Your task to perform on an android device: Search for the best selling video games at Target Image 0: 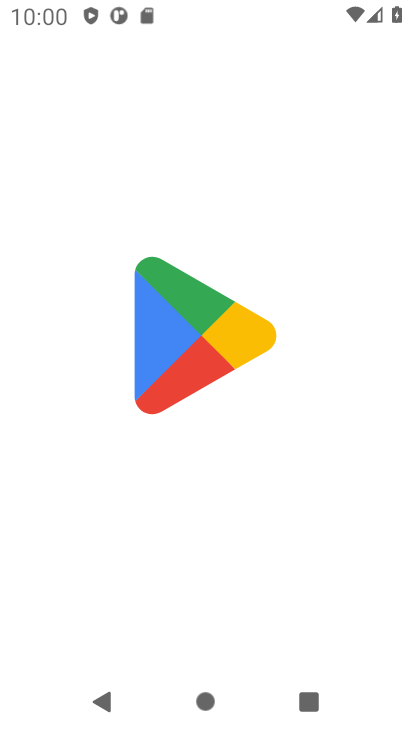
Step 0: press home button
Your task to perform on an android device: Search for the best selling video games at Target Image 1: 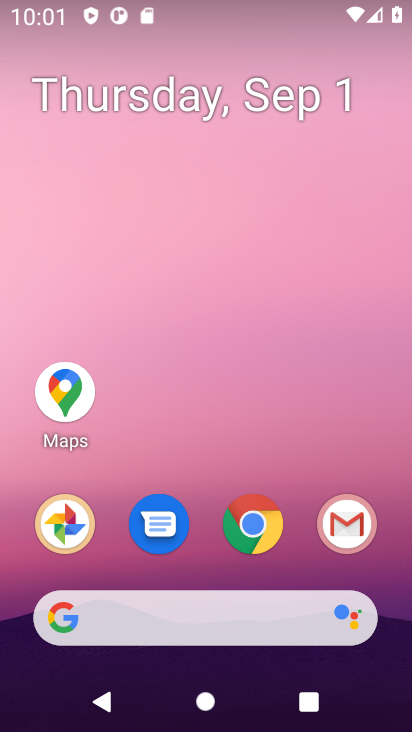
Step 1: drag from (383, 582) to (377, 82)
Your task to perform on an android device: Search for the best selling video games at Target Image 2: 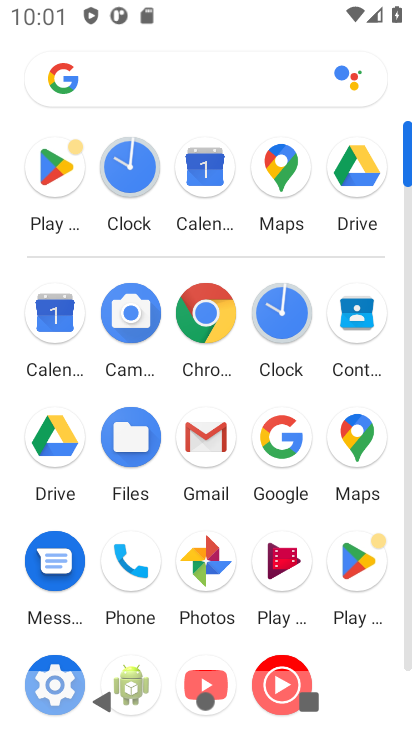
Step 2: click (206, 311)
Your task to perform on an android device: Search for the best selling video games at Target Image 3: 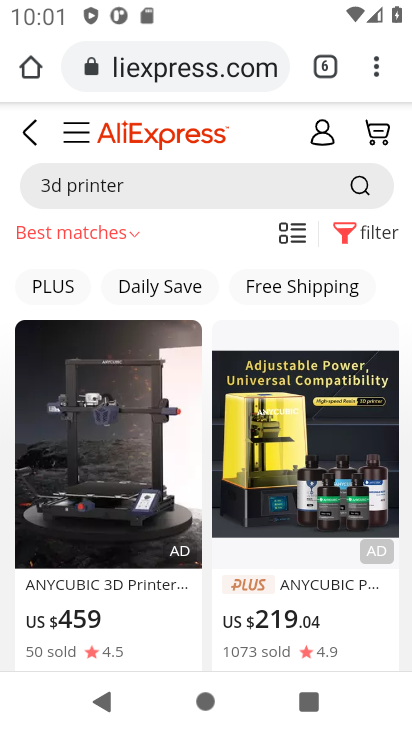
Step 3: click (202, 66)
Your task to perform on an android device: Search for the best selling video games at Target Image 4: 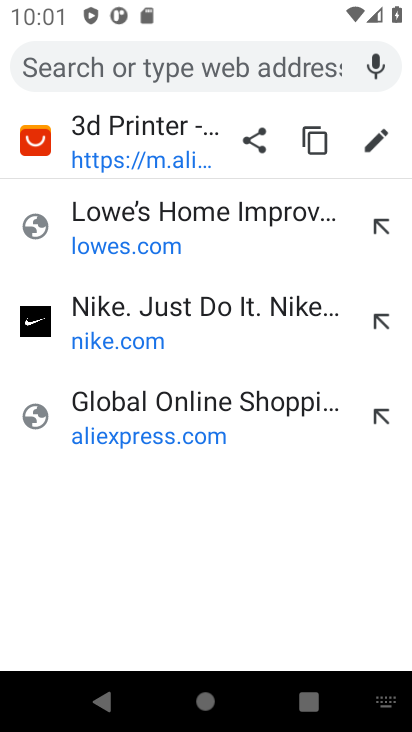
Step 4: type "target"
Your task to perform on an android device: Search for the best selling video games at Target Image 5: 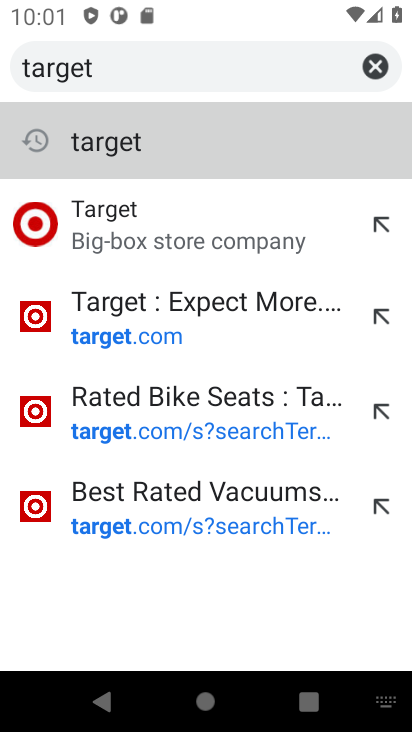
Step 5: click (196, 147)
Your task to perform on an android device: Search for the best selling video games at Target Image 6: 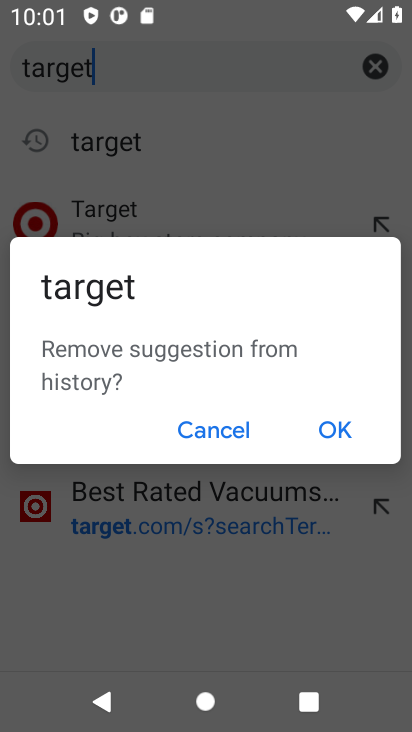
Step 6: click (230, 431)
Your task to perform on an android device: Search for the best selling video games at Target Image 7: 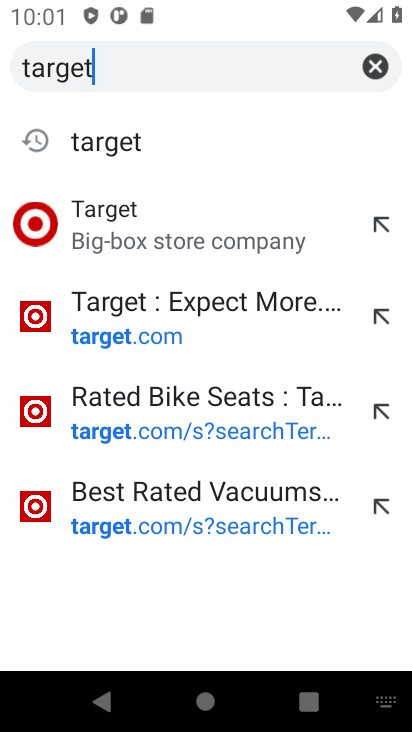
Step 7: click (100, 135)
Your task to perform on an android device: Search for the best selling video games at Target Image 8: 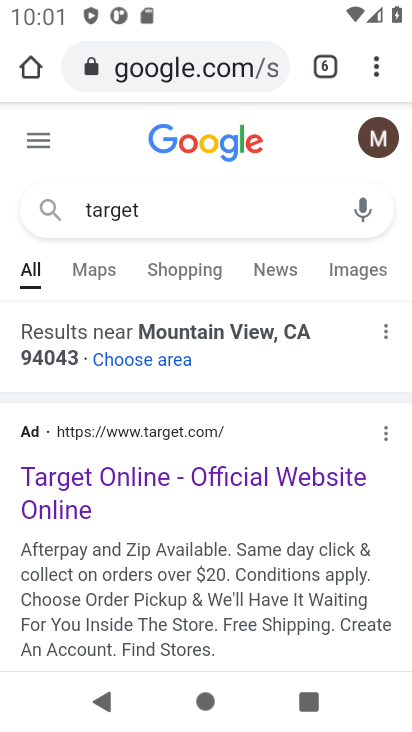
Step 8: click (239, 477)
Your task to perform on an android device: Search for the best selling video games at Target Image 9: 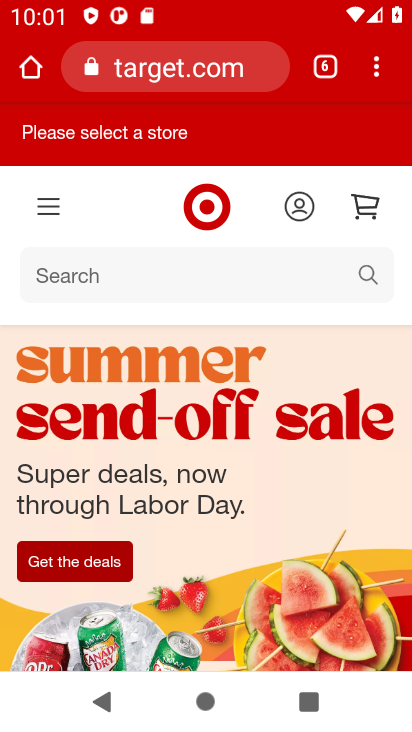
Step 9: click (124, 268)
Your task to perform on an android device: Search for the best selling video games at Target Image 10: 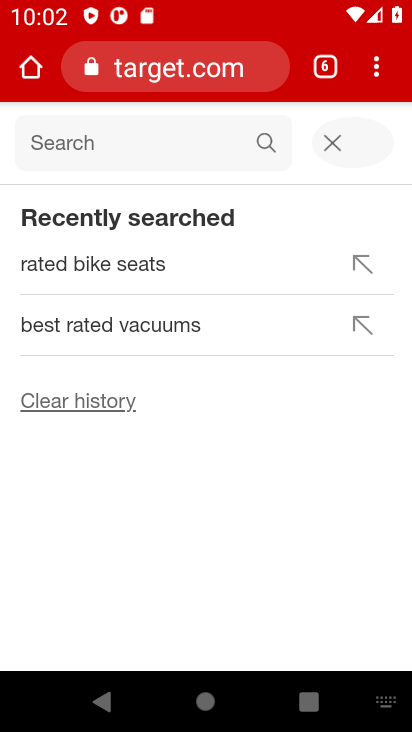
Step 10: type "best selling video games"
Your task to perform on an android device: Search for the best selling video games at Target Image 11: 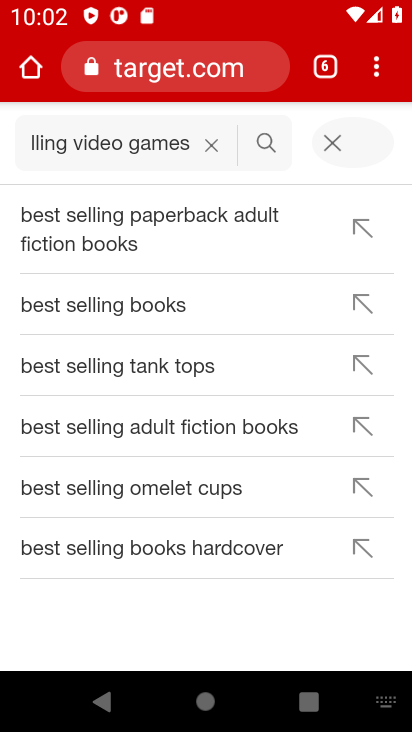
Step 11: click (262, 138)
Your task to perform on an android device: Search for the best selling video games at Target Image 12: 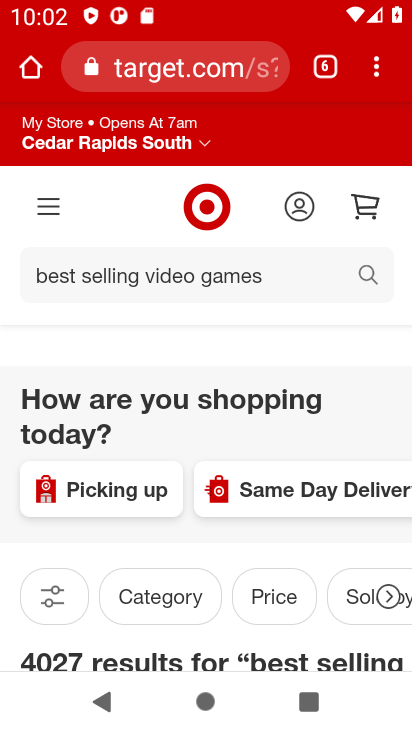
Step 12: task complete